Your task to perform on an android device: find snoozed emails in the gmail app Image 0: 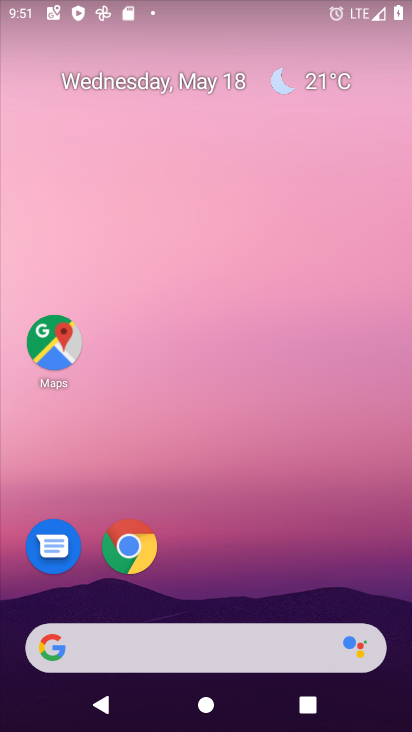
Step 0: drag from (395, 654) to (305, 150)
Your task to perform on an android device: find snoozed emails in the gmail app Image 1: 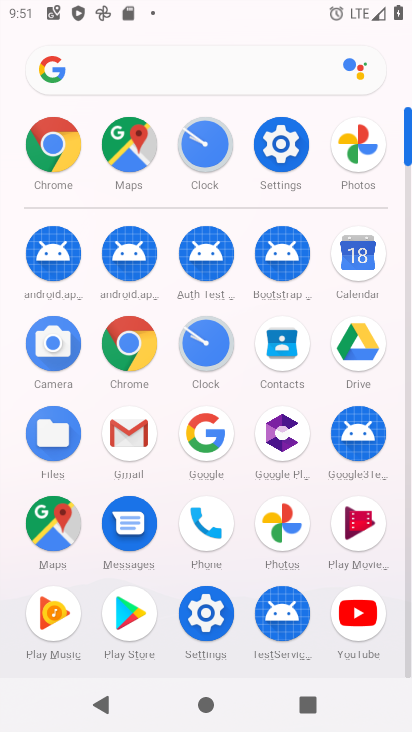
Step 1: click (114, 434)
Your task to perform on an android device: find snoozed emails in the gmail app Image 2: 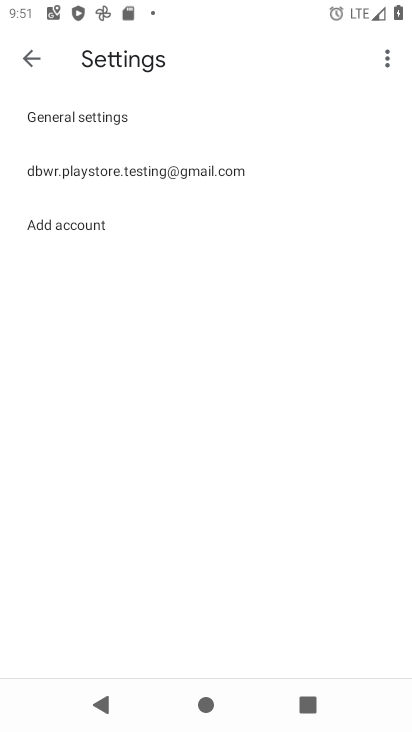
Step 2: press back button
Your task to perform on an android device: find snoozed emails in the gmail app Image 3: 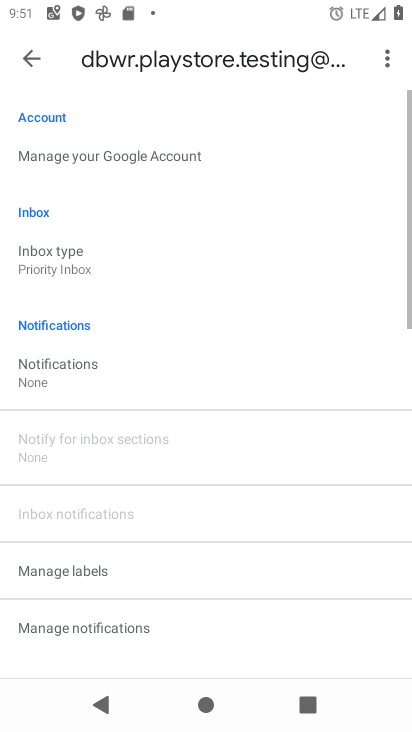
Step 3: press back button
Your task to perform on an android device: find snoozed emails in the gmail app Image 4: 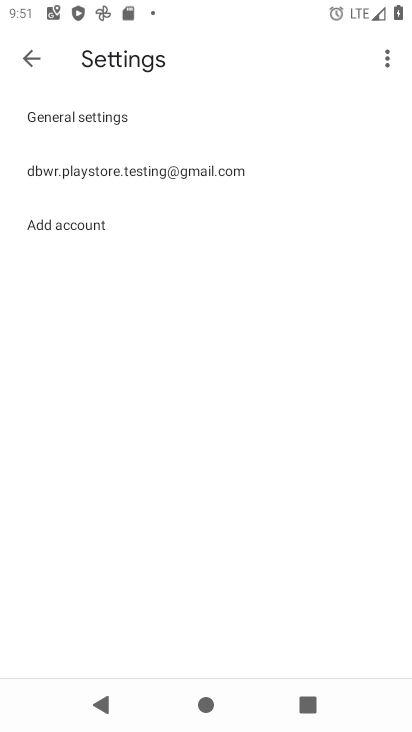
Step 4: press back button
Your task to perform on an android device: find snoozed emails in the gmail app Image 5: 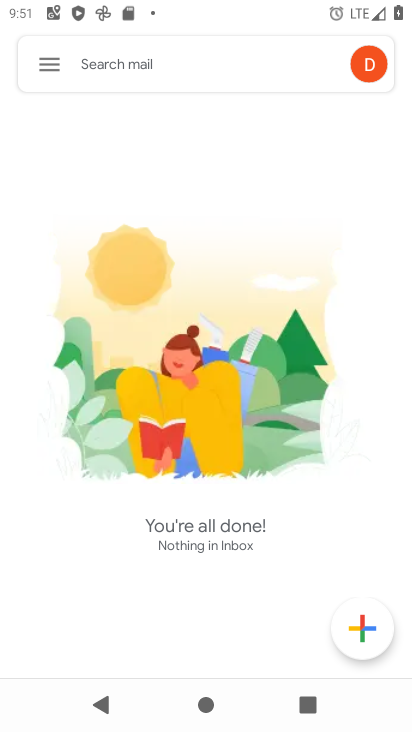
Step 5: click (41, 75)
Your task to perform on an android device: find snoozed emails in the gmail app Image 6: 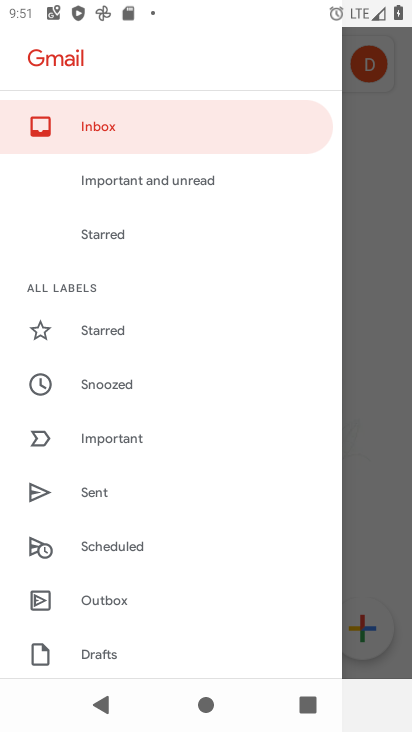
Step 6: click (130, 388)
Your task to perform on an android device: find snoozed emails in the gmail app Image 7: 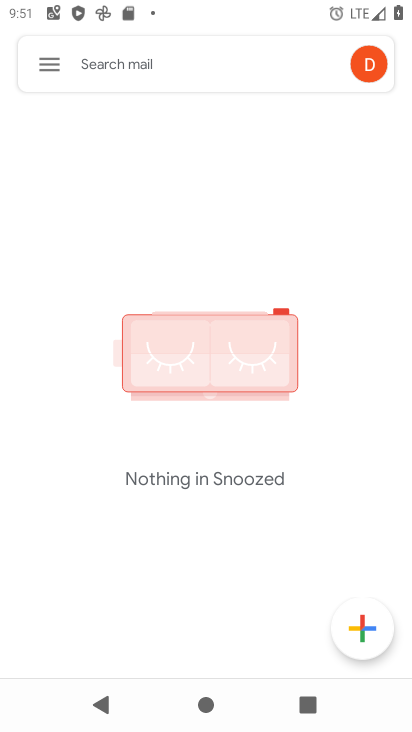
Step 7: task complete